Your task to perform on an android device: What's the weather? Image 0: 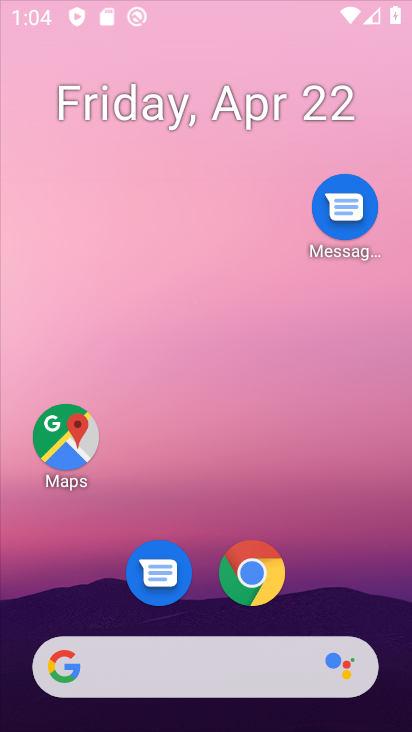
Step 0: click (281, 172)
Your task to perform on an android device: What's the weather? Image 1: 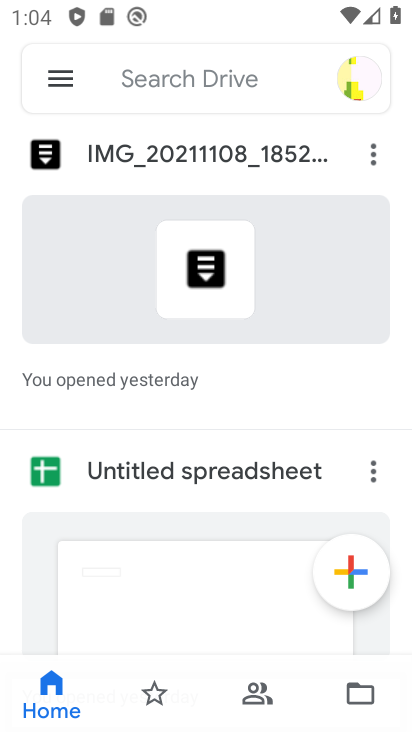
Step 1: press home button
Your task to perform on an android device: What's the weather? Image 2: 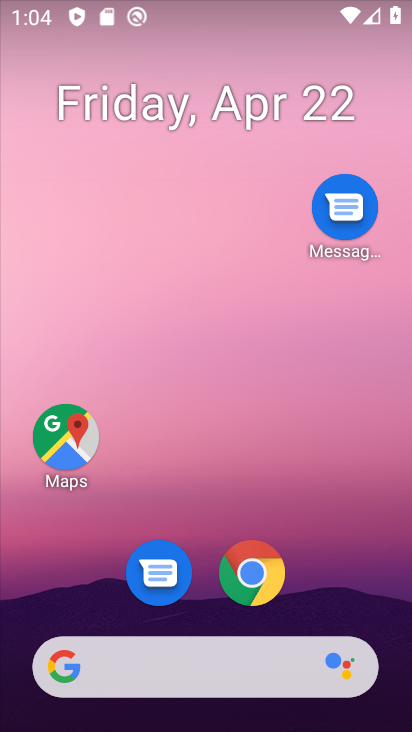
Step 2: click (261, 584)
Your task to perform on an android device: What's the weather? Image 3: 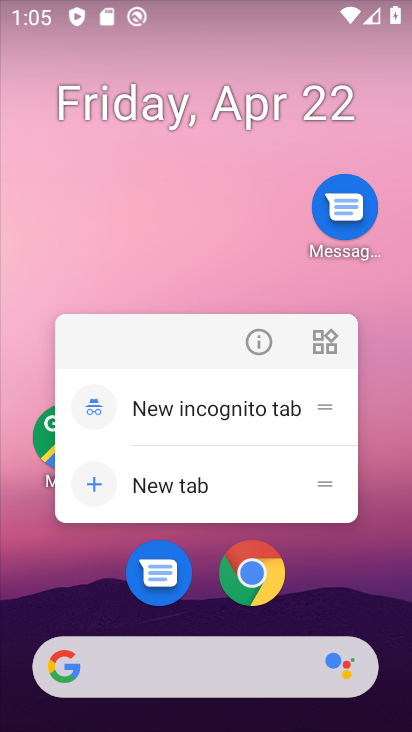
Step 3: click (255, 584)
Your task to perform on an android device: What's the weather? Image 4: 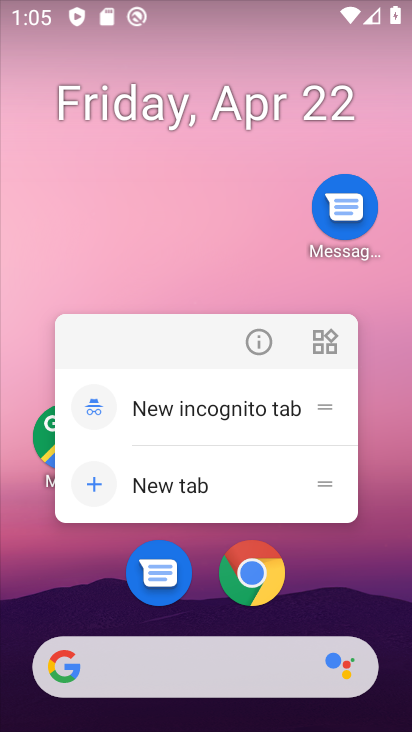
Step 4: click (251, 569)
Your task to perform on an android device: What's the weather? Image 5: 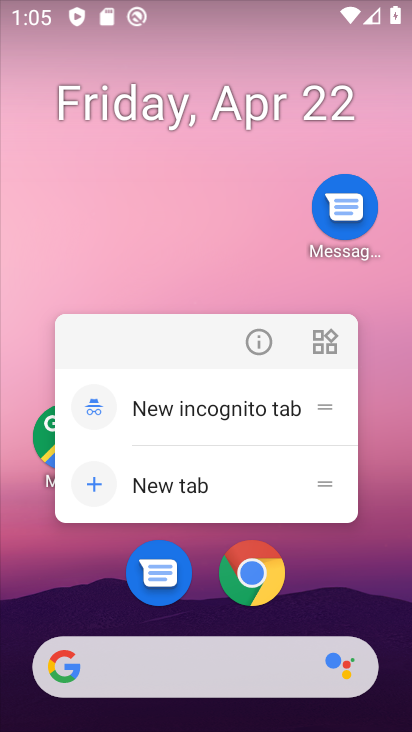
Step 5: click (251, 569)
Your task to perform on an android device: What's the weather? Image 6: 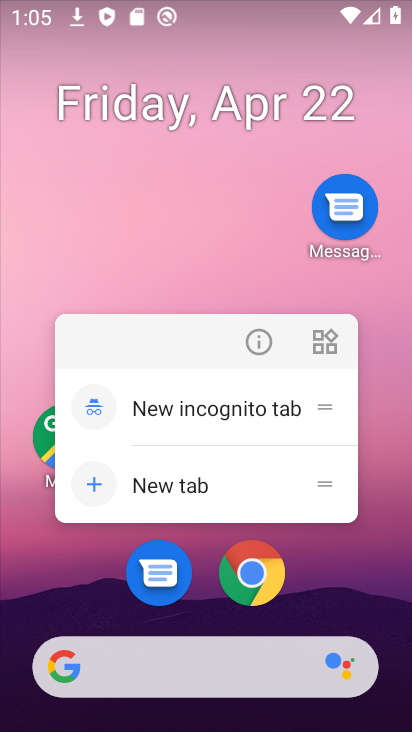
Step 6: click (253, 583)
Your task to perform on an android device: What's the weather? Image 7: 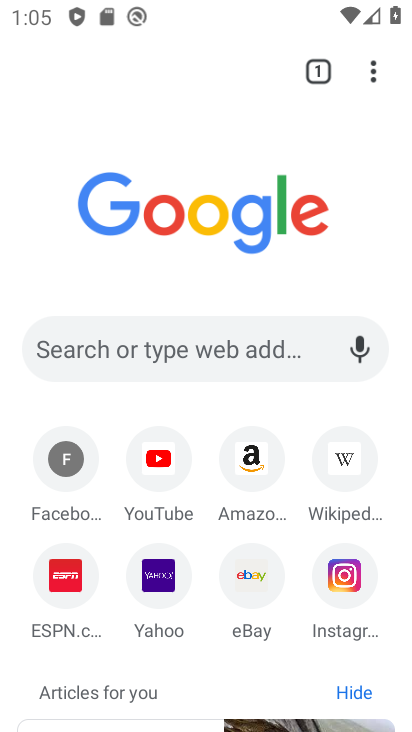
Step 7: click (140, 342)
Your task to perform on an android device: What's the weather? Image 8: 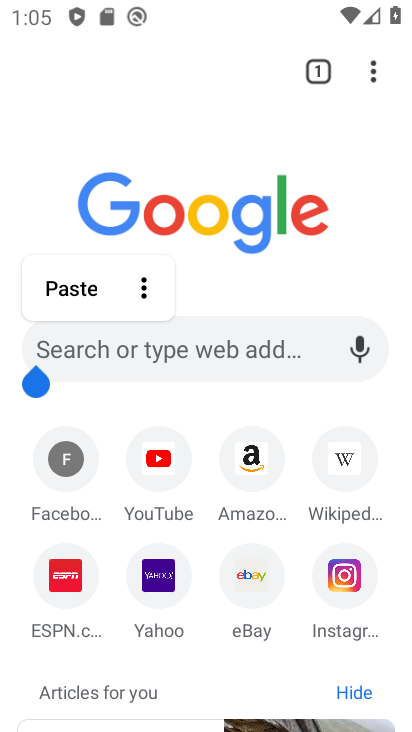
Step 8: click (267, 333)
Your task to perform on an android device: What's the weather? Image 9: 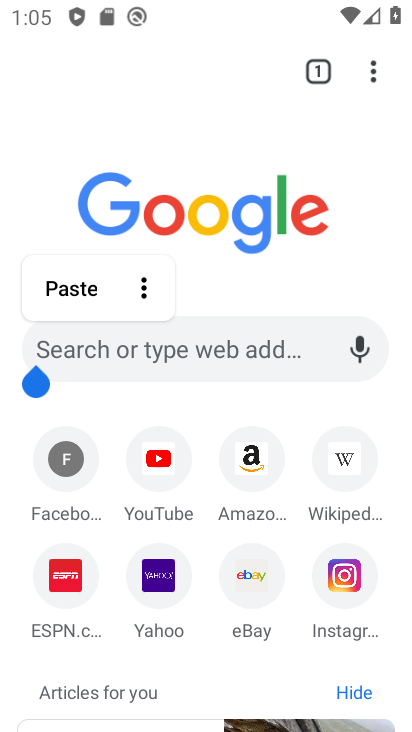
Step 9: click (270, 347)
Your task to perform on an android device: What's the weather? Image 10: 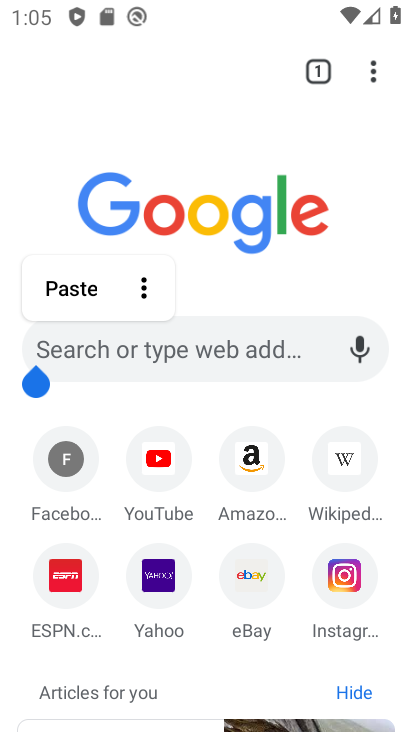
Step 10: click (251, 353)
Your task to perform on an android device: What's the weather? Image 11: 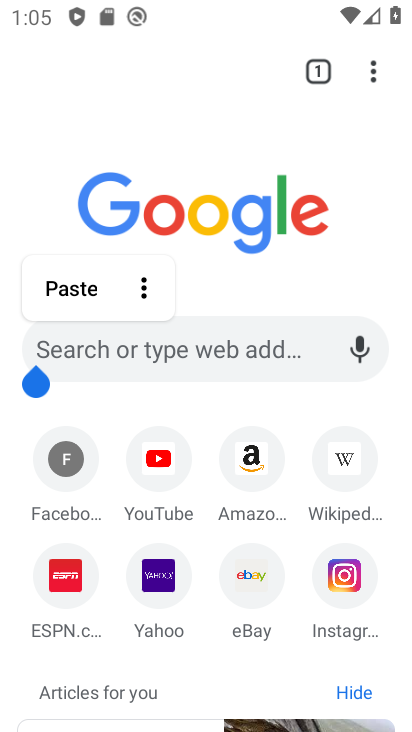
Step 11: click (51, 82)
Your task to perform on an android device: What's the weather? Image 12: 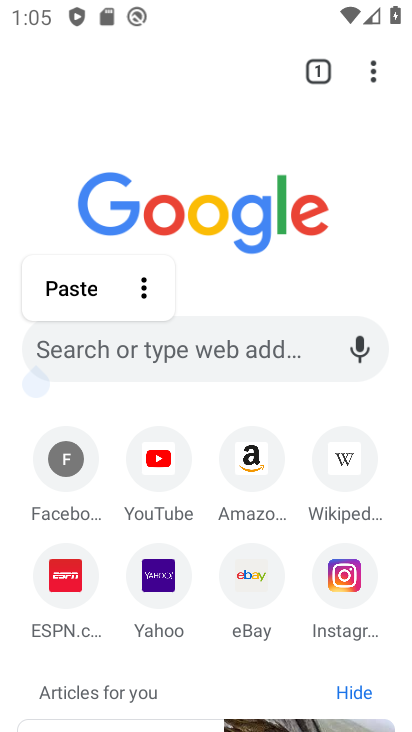
Step 12: click (224, 352)
Your task to perform on an android device: What's the weather? Image 13: 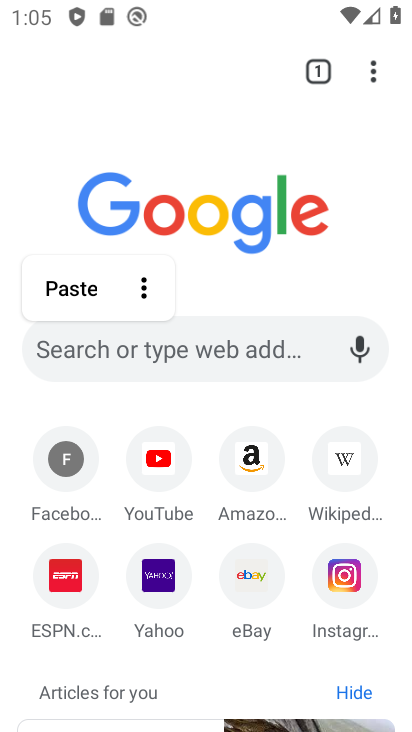
Step 13: click (144, 358)
Your task to perform on an android device: What's the weather? Image 14: 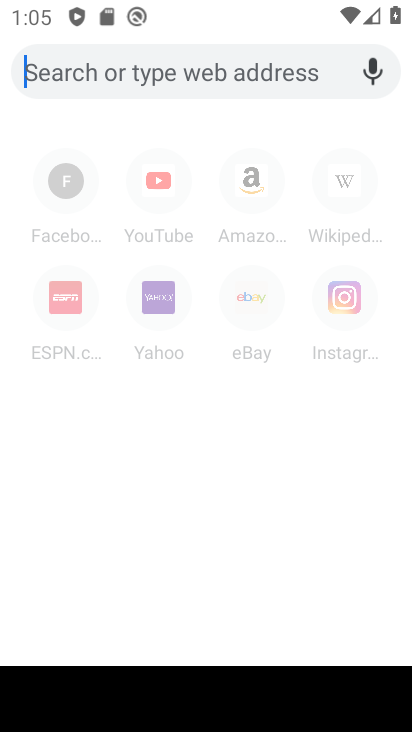
Step 14: type "whats the weather?"
Your task to perform on an android device: What's the weather? Image 15: 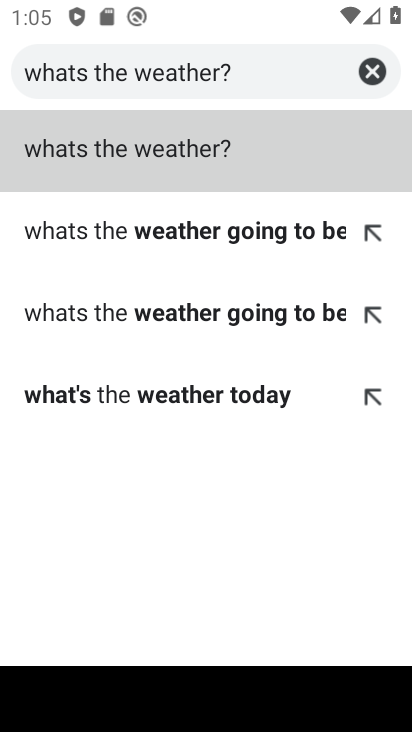
Step 15: click (137, 160)
Your task to perform on an android device: What's the weather? Image 16: 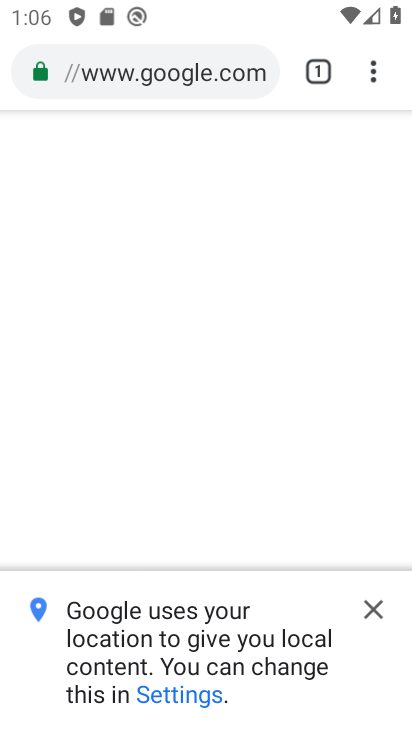
Step 16: click (373, 605)
Your task to perform on an android device: What's the weather? Image 17: 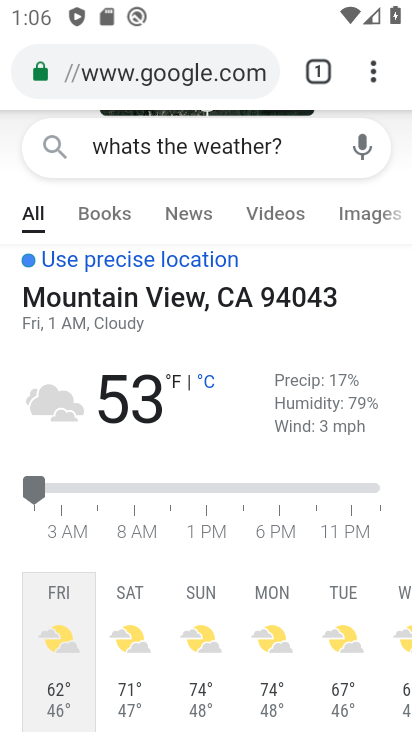
Step 17: task complete